Your task to perform on an android device: find snoozed emails in the gmail app Image 0: 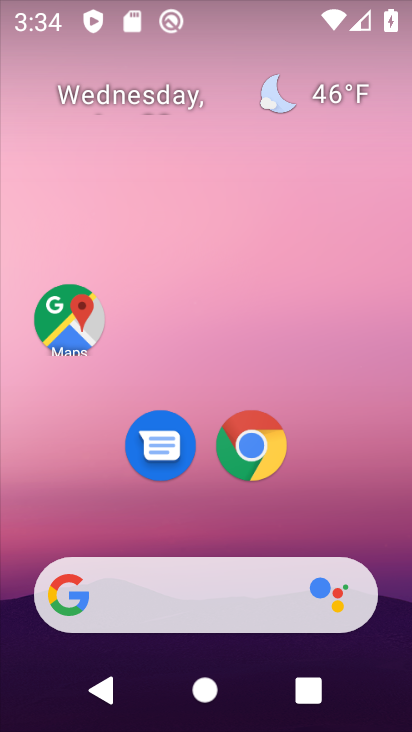
Step 0: drag from (209, 533) to (228, 28)
Your task to perform on an android device: find snoozed emails in the gmail app Image 1: 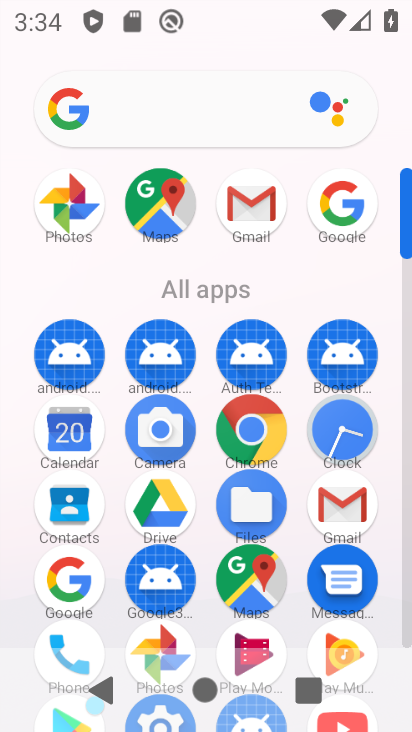
Step 1: click (338, 504)
Your task to perform on an android device: find snoozed emails in the gmail app Image 2: 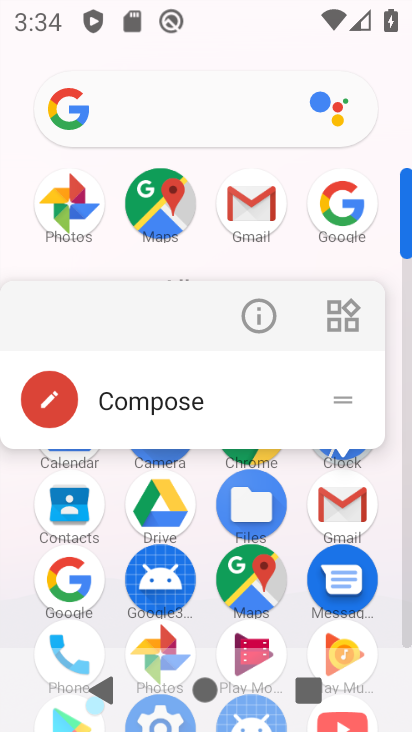
Step 2: click (341, 499)
Your task to perform on an android device: find snoozed emails in the gmail app Image 3: 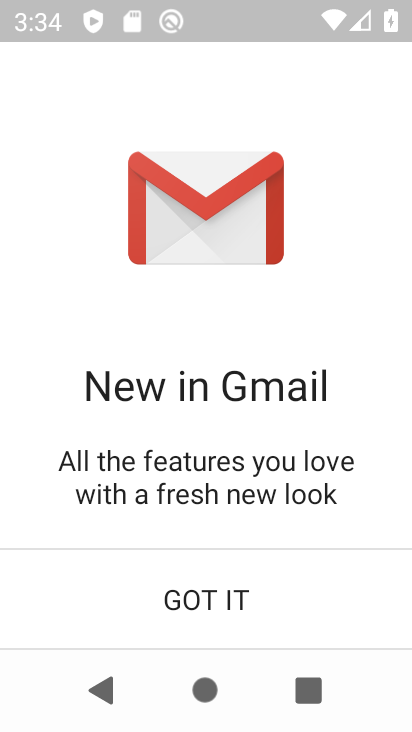
Step 3: click (214, 614)
Your task to perform on an android device: find snoozed emails in the gmail app Image 4: 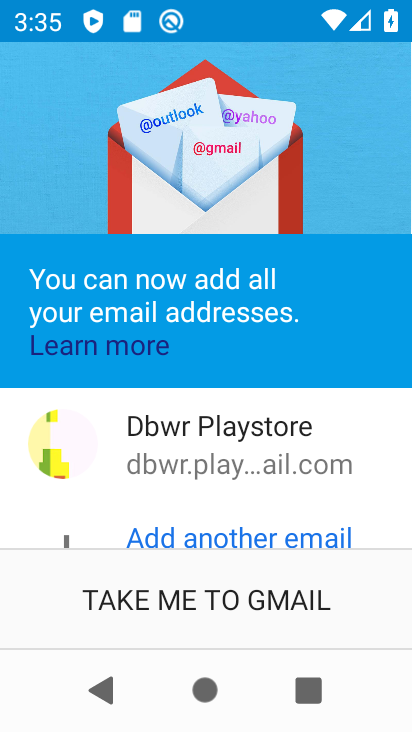
Step 4: click (214, 614)
Your task to perform on an android device: find snoozed emails in the gmail app Image 5: 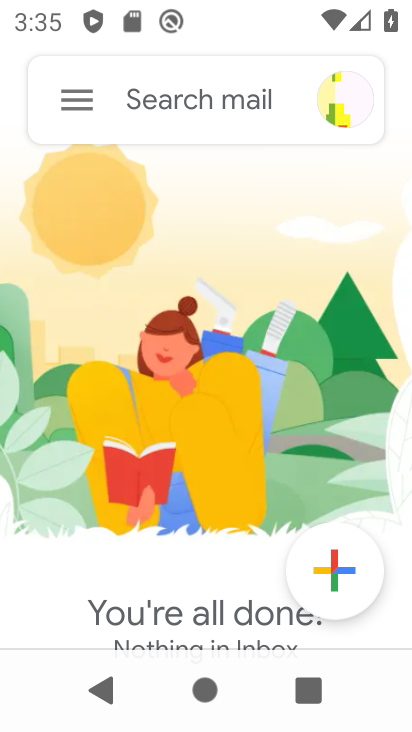
Step 5: click (67, 100)
Your task to perform on an android device: find snoozed emails in the gmail app Image 6: 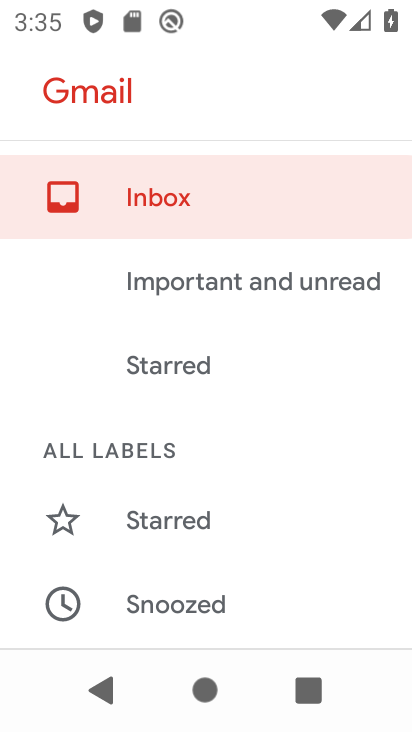
Step 6: click (177, 588)
Your task to perform on an android device: find snoozed emails in the gmail app Image 7: 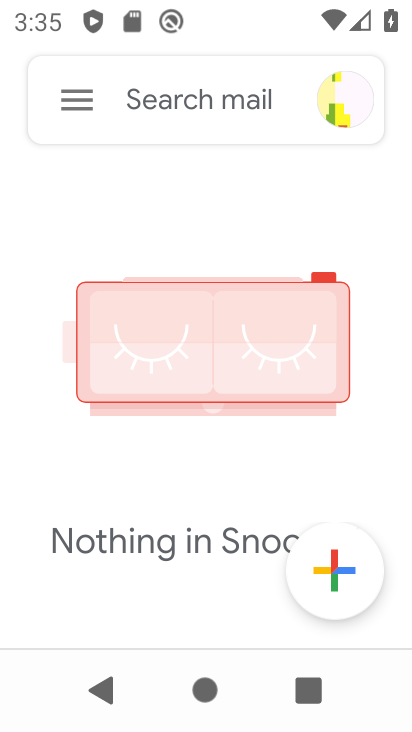
Step 7: task complete